Your task to perform on an android device: Open calendar and show me the second week of next month Image 0: 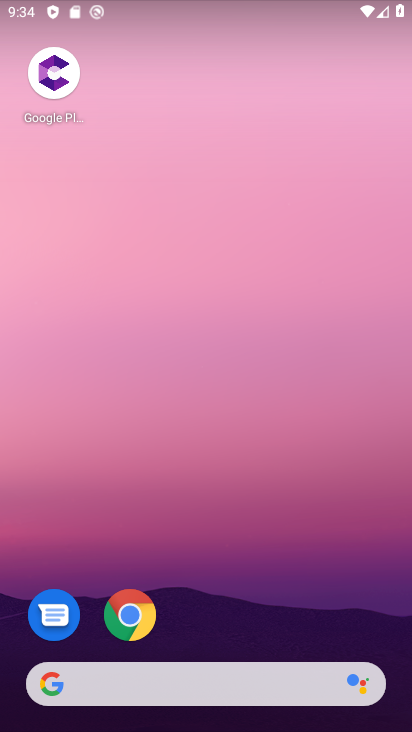
Step 0: drag from (192, 728) to (255, 91)
Your task to perform on an android device: Open calendar and show me the second week of next month Image 1: 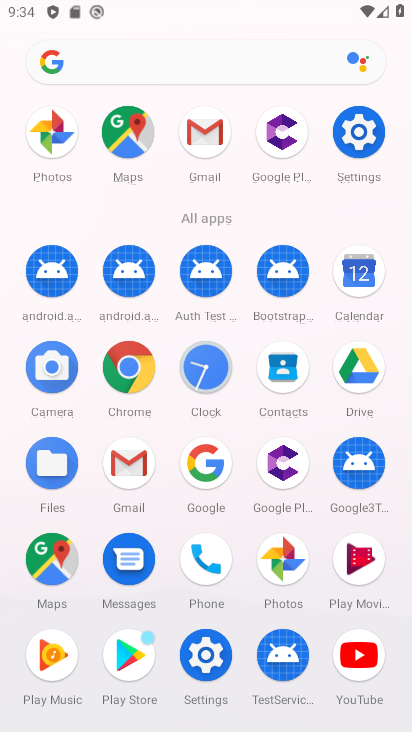
Step 1: click (355, 276)
Your task to perform on an android device: Open calendar and show me the second week of next month Image 2: 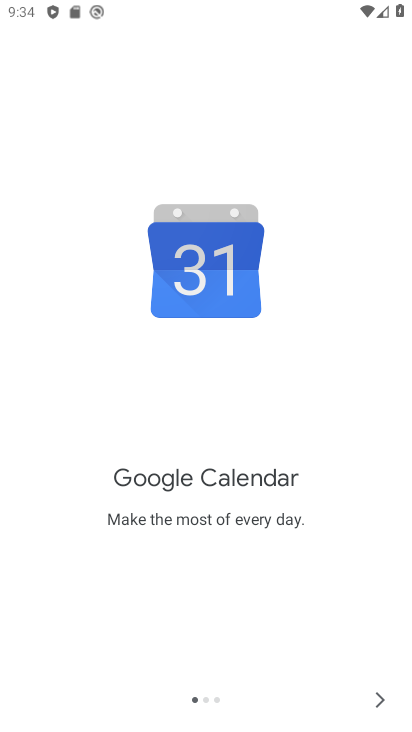
Step 2: click (381, 692)
Your task to perform on an android device: Open calendar and show me the second week of next month Image 3: 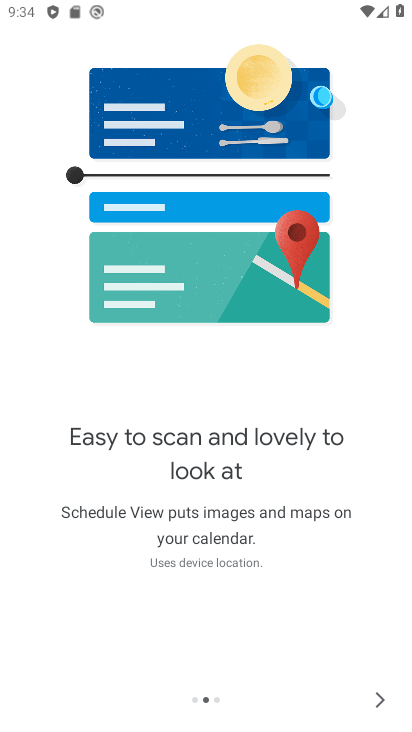
Step 3: click (377, 688)
Your task to perform on an android device: Open calendar and show me the second week of next month Image 4: 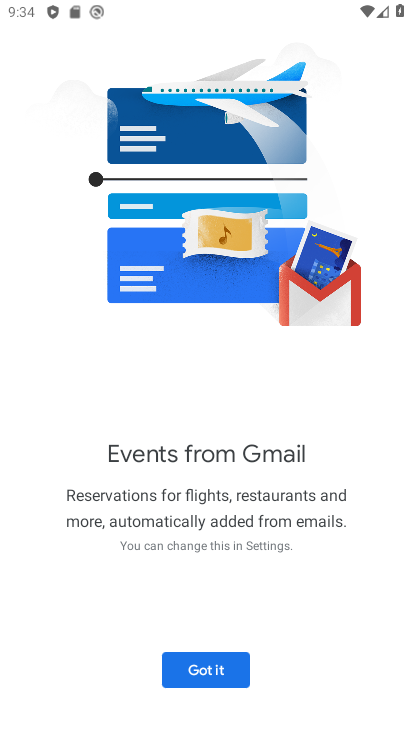
Step 4: click (213, 666)
Your task to perform on an android device: Open calendar and show me the second week of next month Image 5: 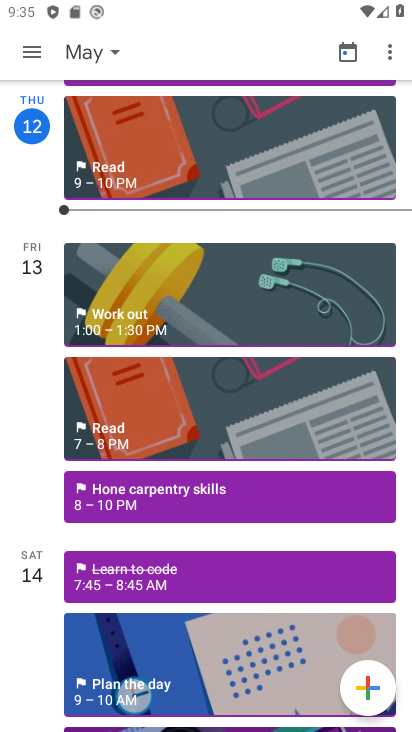
Step 5: click (26, 52)
Your task to perform on an android device: Open calendar and show me the second week of next month Image 6: 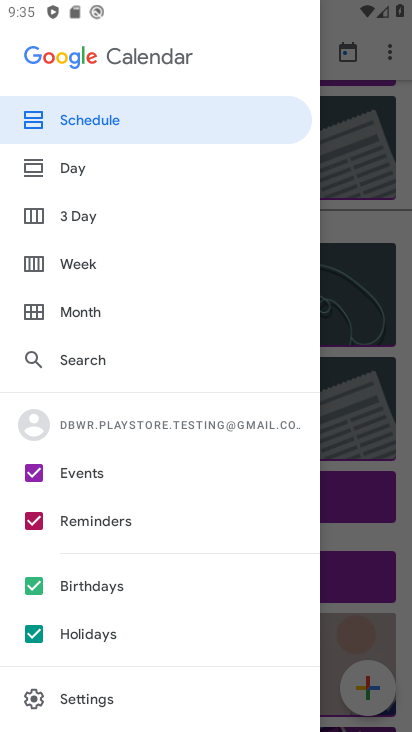
Step 6: click (83, 260)
Your task to perform on an android device: Open calendar and show me the second week of next month Image 7: 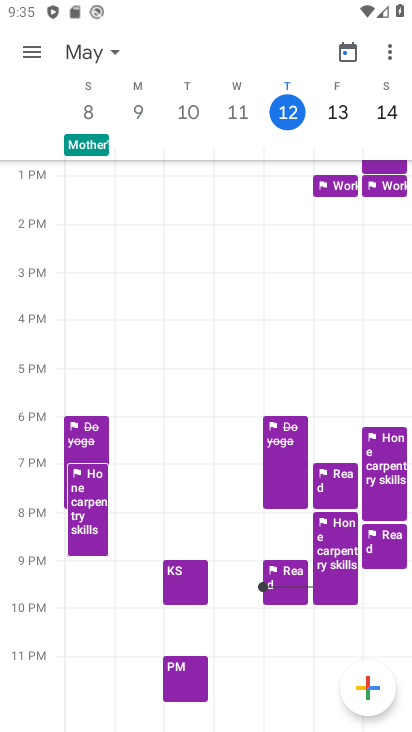
Step 7: drag from (361, 113) to (0, 112)
Your task to perform on an android device: Open calendar and show me the second week of next month Image 8: 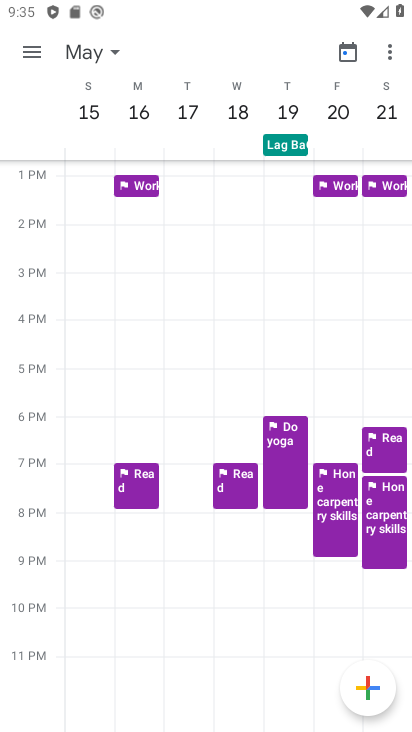
Step 8: drag from (389, 118) to (0, 70)
Your task to perform on an android device: Open calendar and show me the second week of next month Image 9: 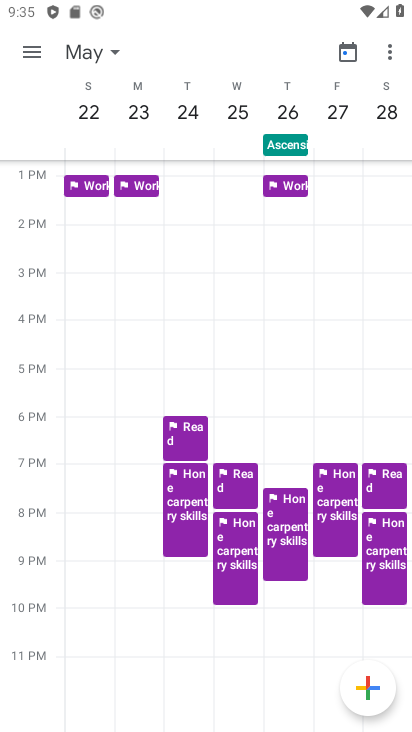
Step 9: drag from (383, 100) to (0, 79)
Your task to perform on an android device: Open calendar and show me the second week of next month Image 10: 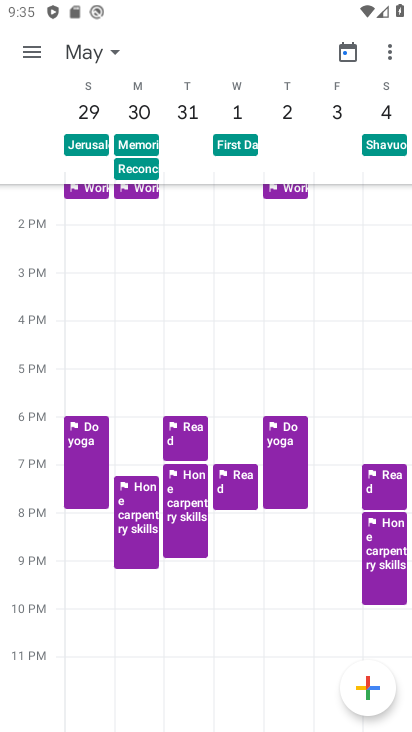
Step 10: drag from (383, 109) to (9, 104)
Your task to perform on an android device: Open calendar and show me the second week of next month Image 11: 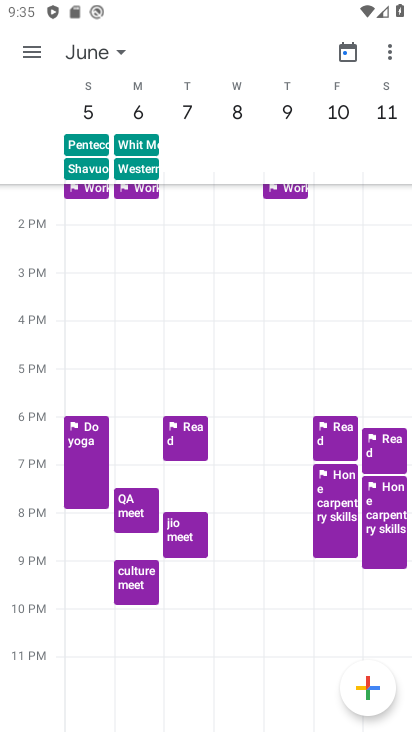
Step 11: drag from (361, 112) to (9, 102)
Your task to perform on an android device: Open calendar and show me the second week of next month Image 12: 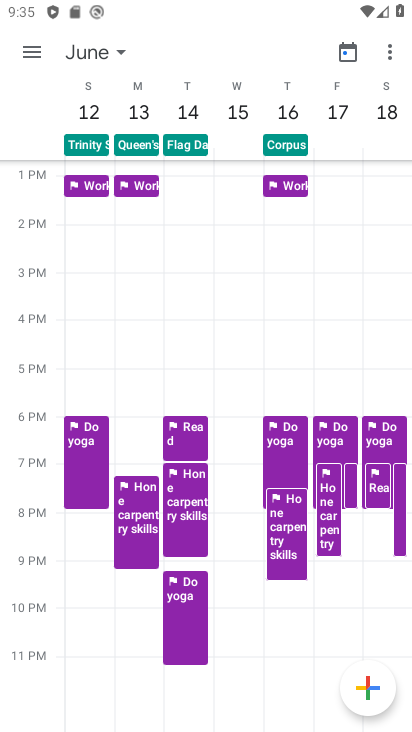
Step 12: click (138, 102)
Your task to perform on an android device: Open calendar and show me the second week of next month Image 13: 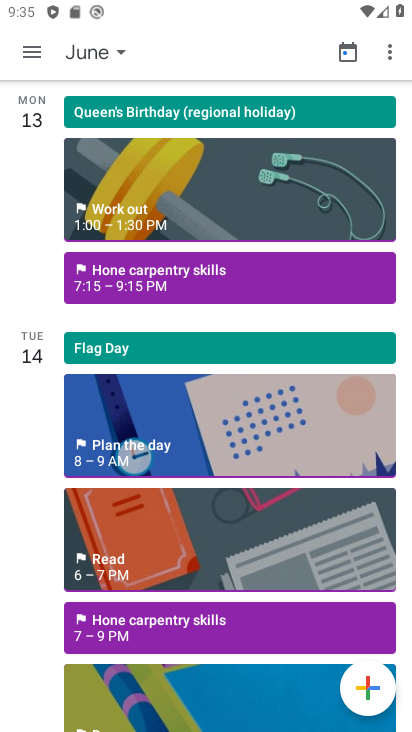
Step 13: task complete